Your task to perform on an android device: change your default location settings in chrome Image 0: 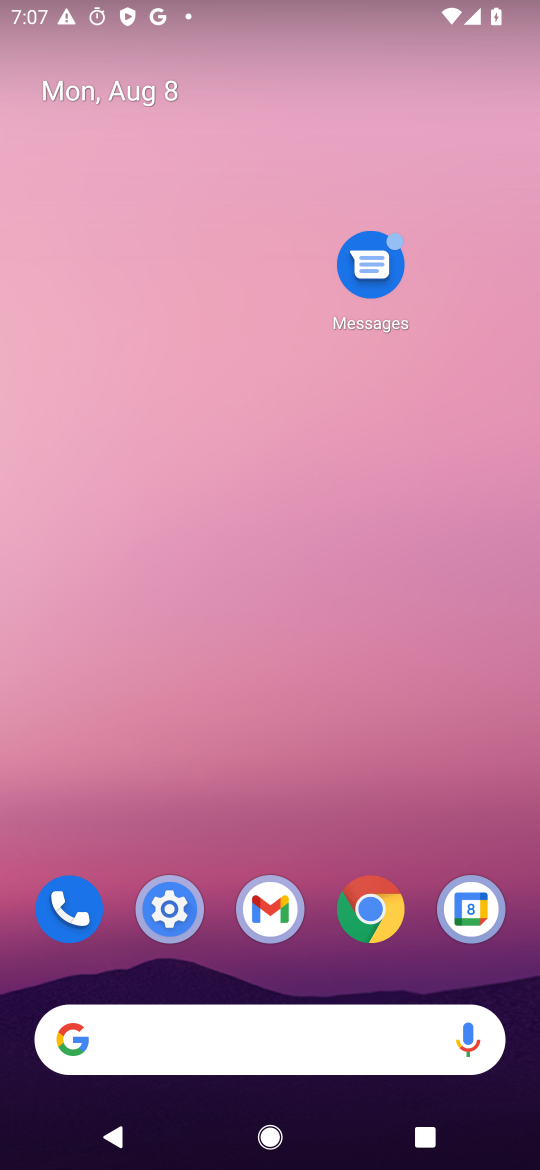
Step 0: press home button
Your task to perform on an android device: change your default location settings in chrome Image 1: 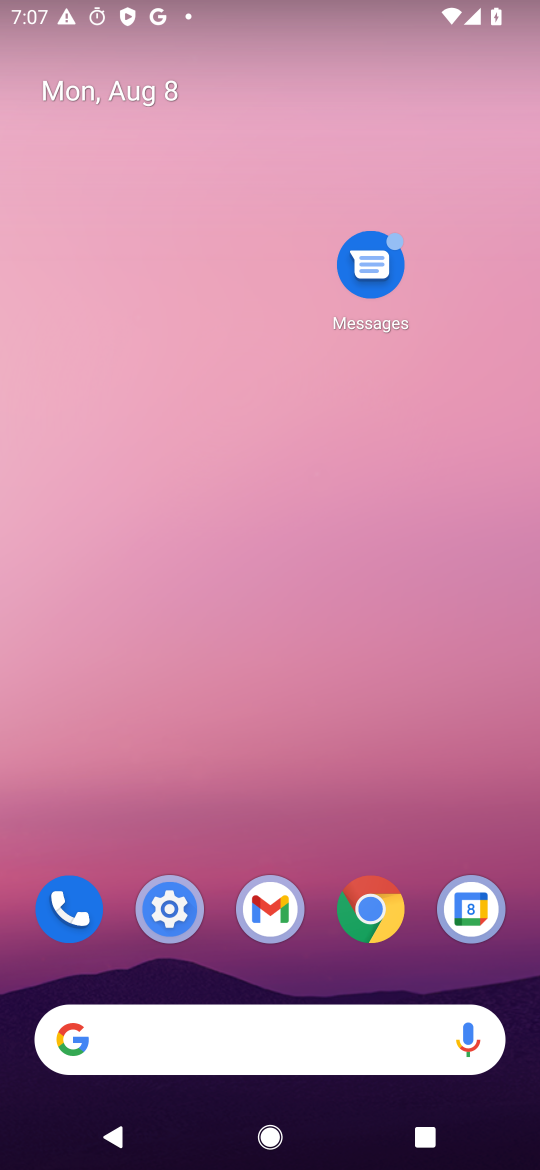
Step 1: click (359, 912)
Your task to perform on an android device: change your default location settings in chrome Image 2: 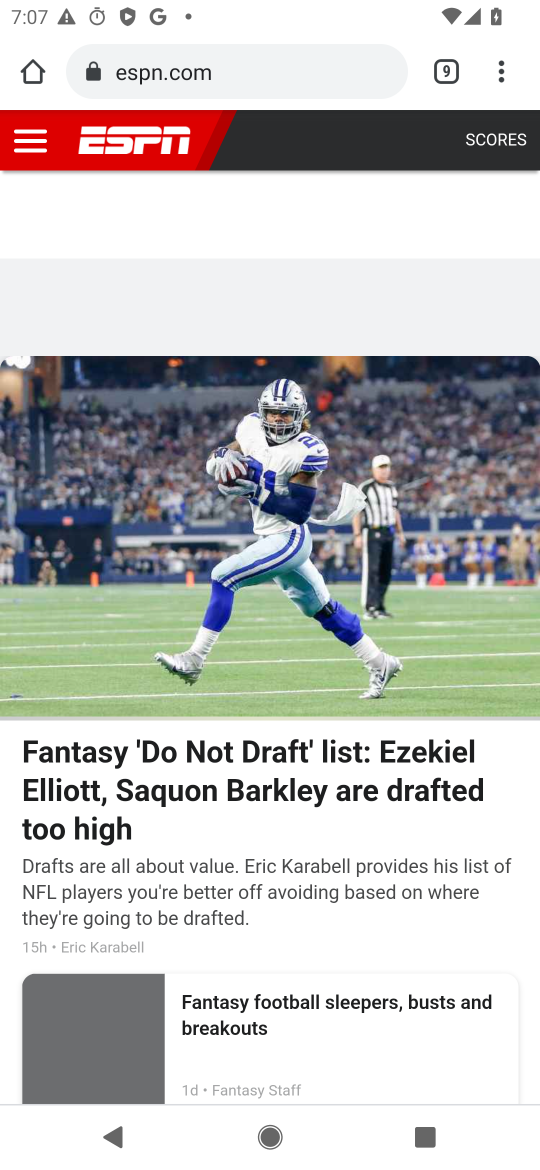
Step 2: drag from (499, 74) to (359, 1013)
Your task to perform on an android device: change your default location settings in chrome Image 3: 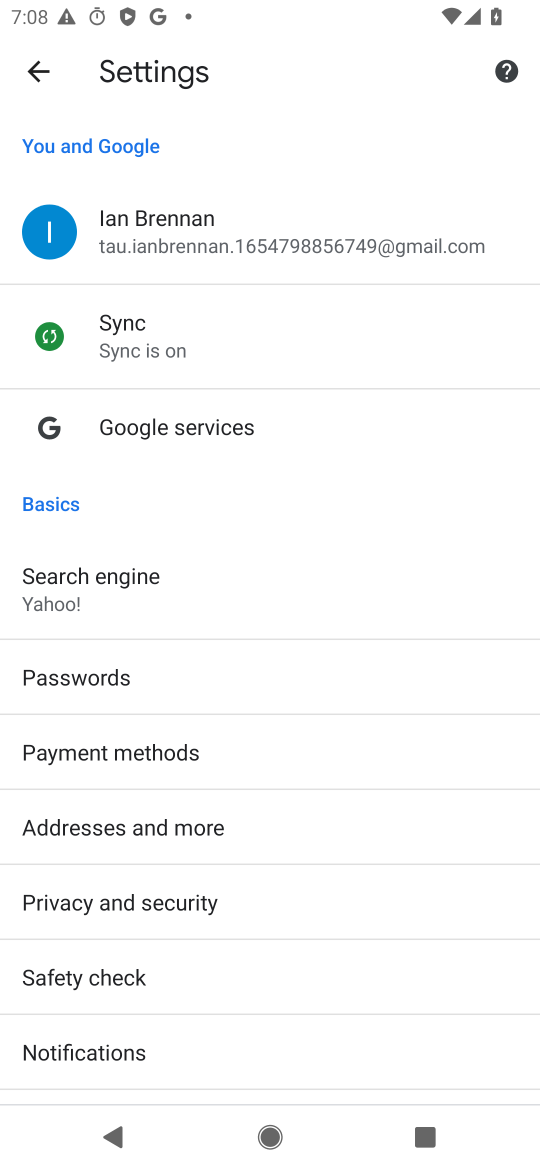
Step 3: drag from (225, 1024) to (426, 451)
Your task to perform on an android device: change your default location settings in chrome Image 4: 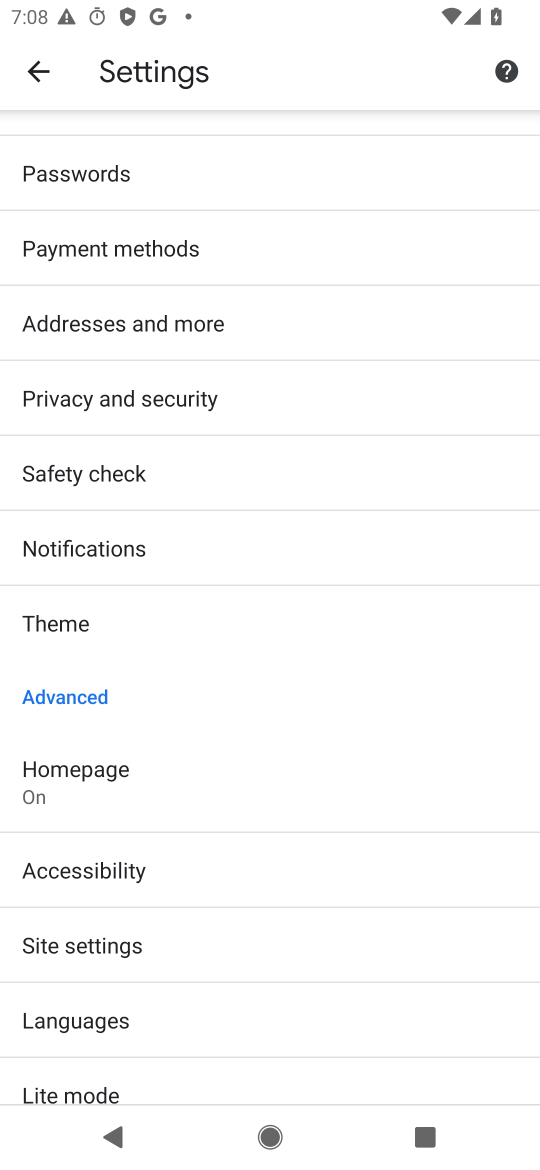
Step 4: click (137, 951)
Your task to perform on an android device: change your default location settings in chrome Image 5: 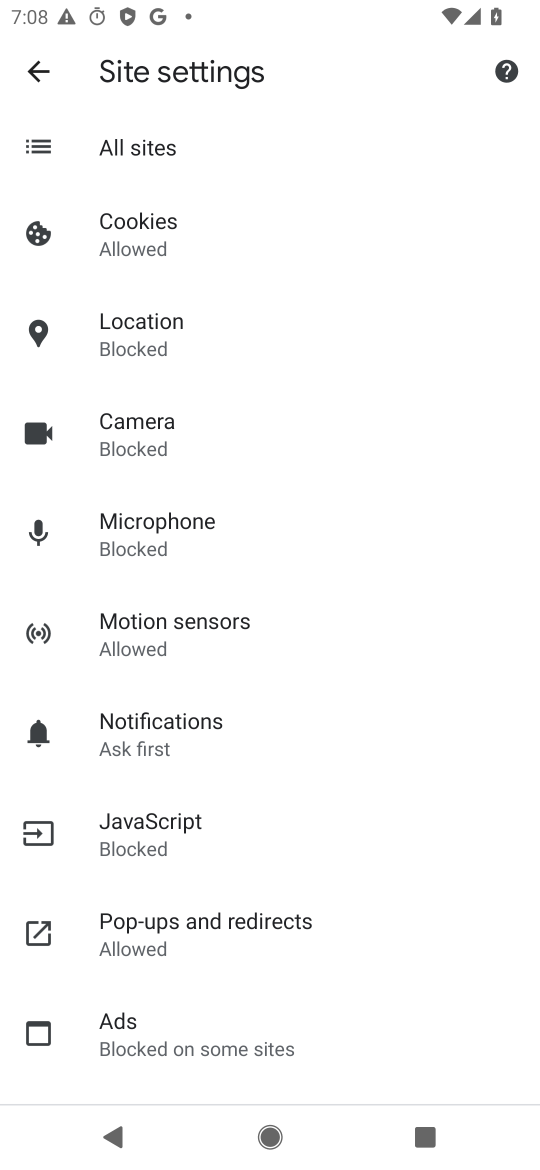
Step 5: click (167, 341)
Your task to perform on an android device: change your default location settings in chrome Image 6: 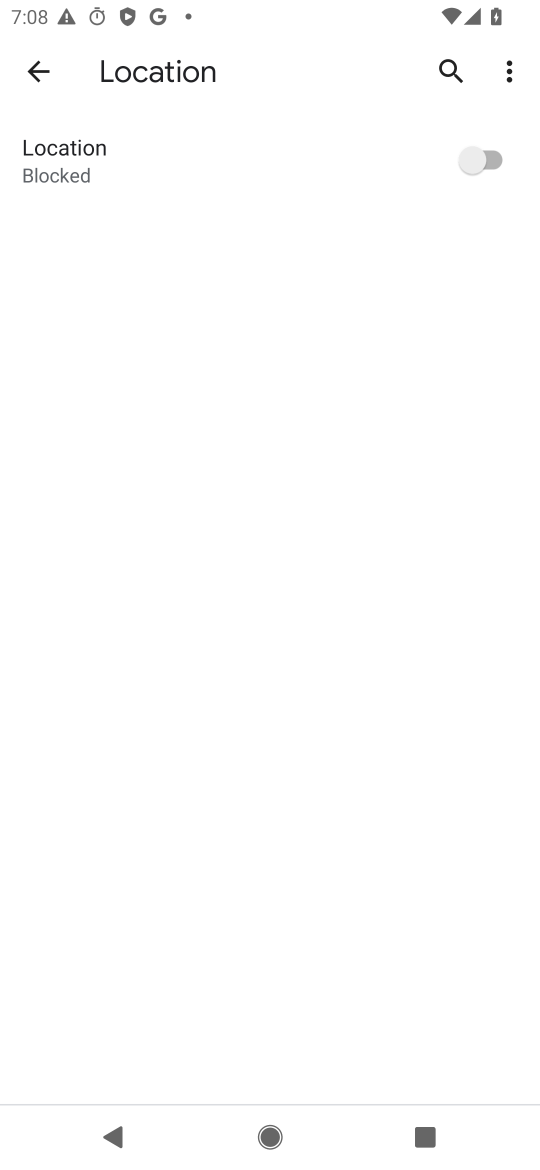
Step 6: click (500, 160)
Your task to perform on an android device: change your default location settings in chrome Image 7: 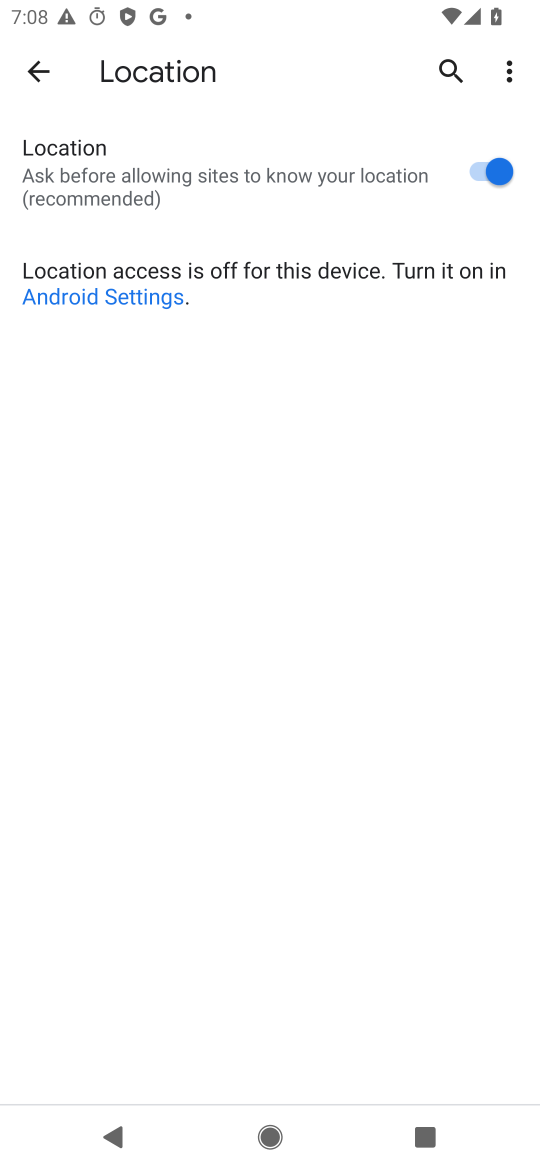
Step 7: task complete